Your task to perform on an android device: turn notification dots off Image 0: 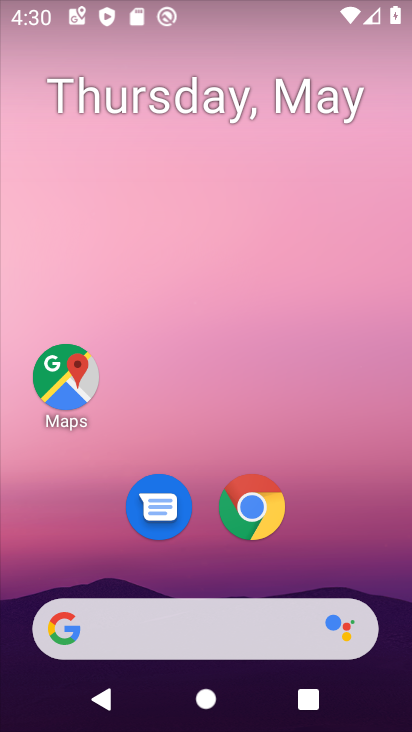
Step 0: drag from (199, 570) to (199, 115)
Your task to perform on an android device: turn notification dots off Image 1: 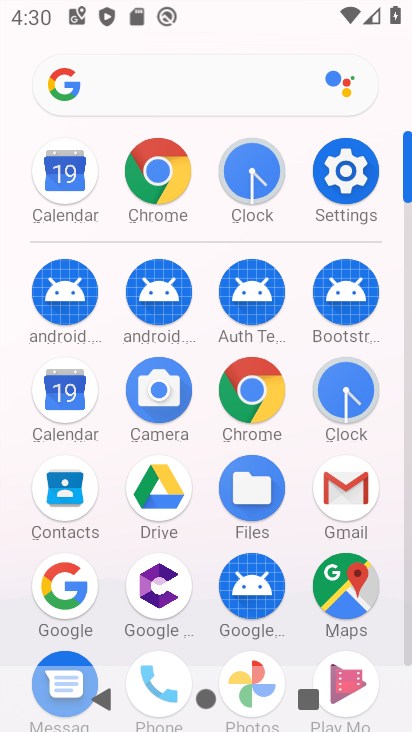
Step 1: click (346, 186)
Your task to perform on an android device: turn notification dots off Image 2: 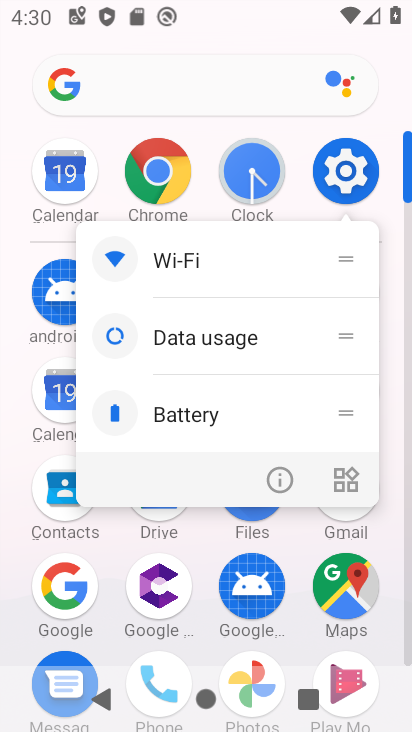
Step 2: click (354, 192)
Your task to perform on an android device: turn notification dots off Image 3: 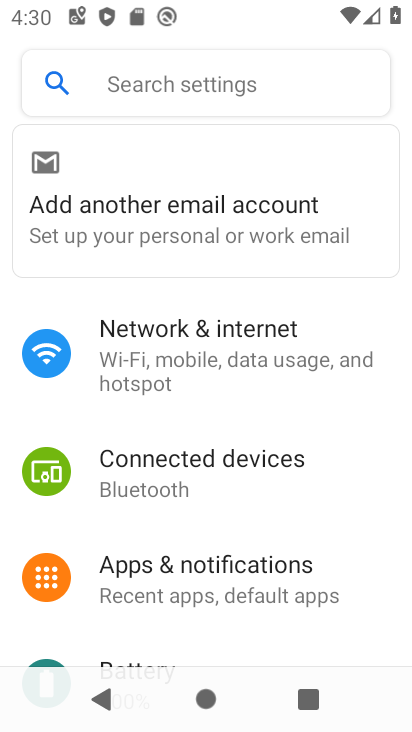
Step 3: click (179, 579)
Your task to perform on an android device: turn notification dots off Image 4: 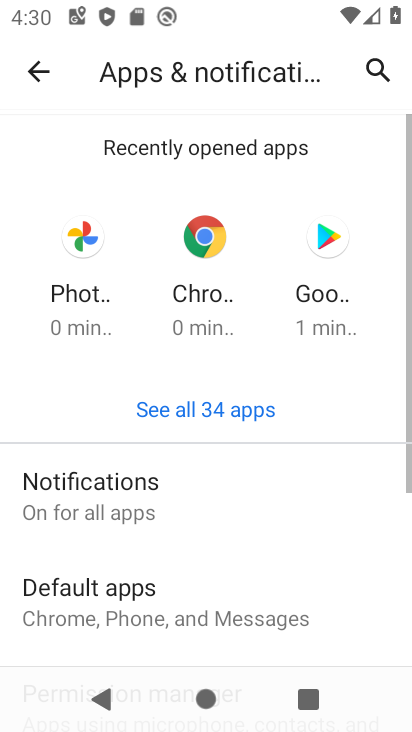
Step 4: drag from (156, 622) to (151, 441)
Your task to perform on an android device: turn notification dots off Image 5: 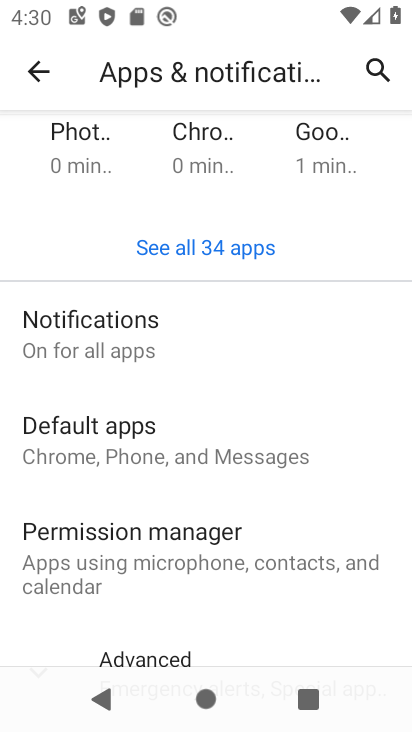
Step 5: click (145, 365)
Your task to perform on an android device: turn notification dots off Image 6: 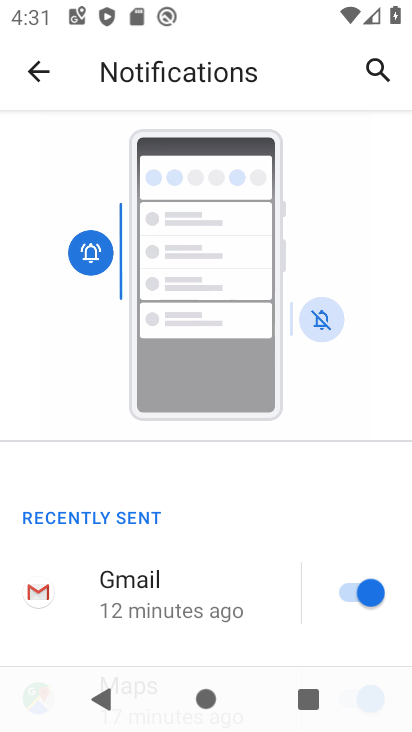
Step 6: drag from (139, 569) to (163, 168)
Your task to perform on an android device: turn notification dots off Image 7: 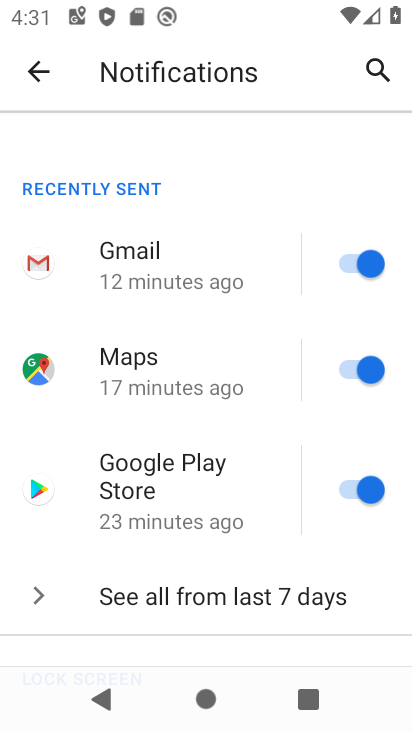
Step 7: drag from (195, 552) to (140, 265)
Your task to perform on an android device: turn notification dots off Image 8: 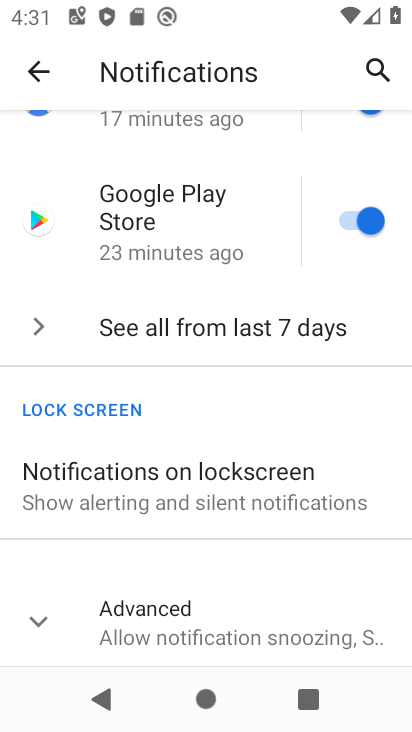
Step 8: click (165, 627)
Your task to perform on an android device: turn notification dots off Image 9: 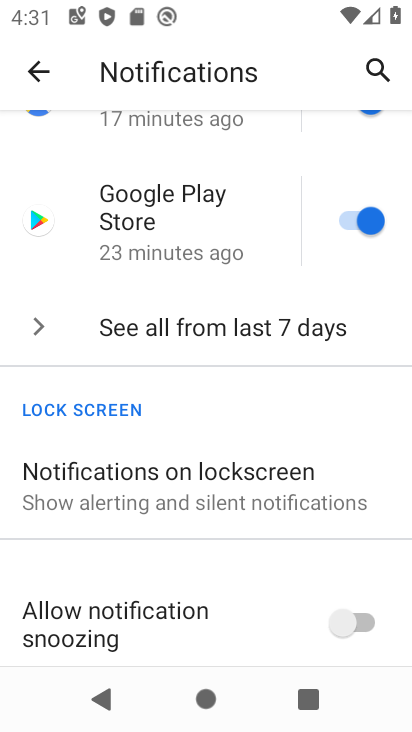
Step 9: task complete